Your task to perform on an android device: Go to accessibility settings Image 0: 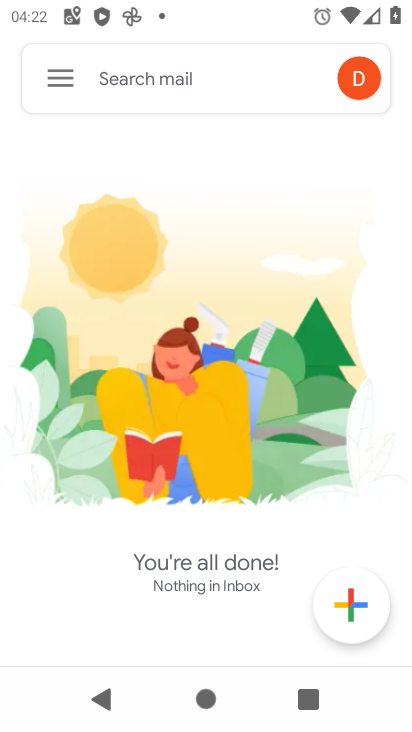
Step 0: press home button
Your task to perform on an android device: Go to accessibility settings Image 1: 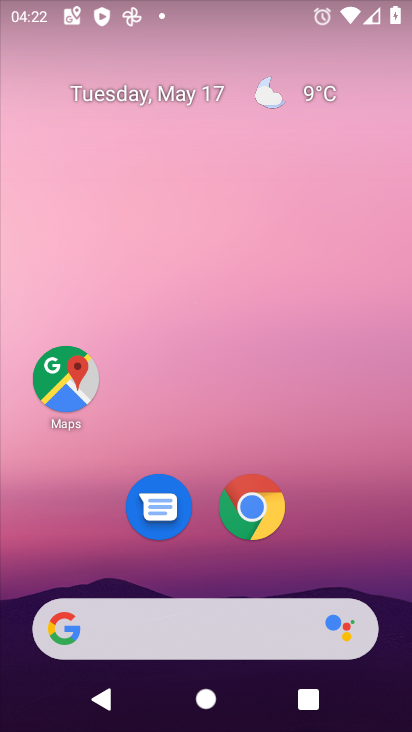
Step 1: drag from (322, 516) to (220, 123)
Your task to perform on an android device: Go to accessibility settings Image 2: 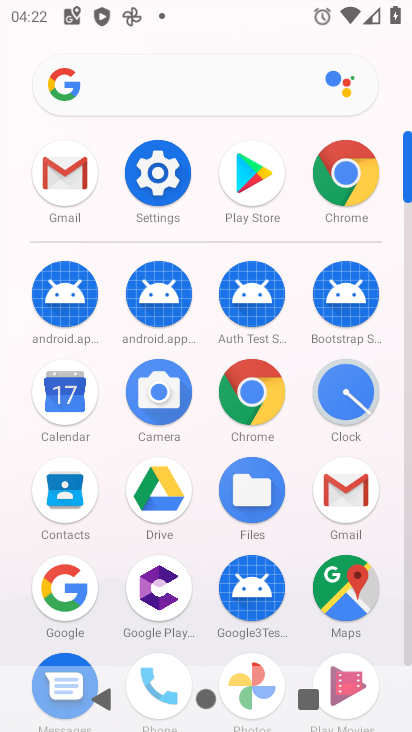
Step 2: click (161, 181)
Your task to perform on an android device: Go to accessibility settings Image 3: 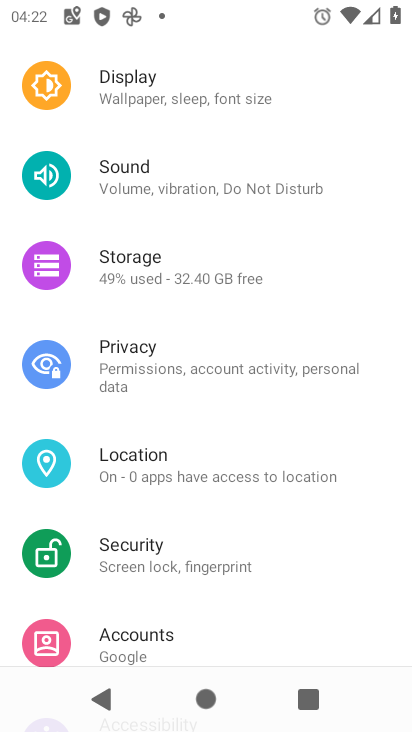
Step 3: drag from (270, 588) to (228, 143)
Your task to perform on an android device: Go to accessibility settings Image 4: 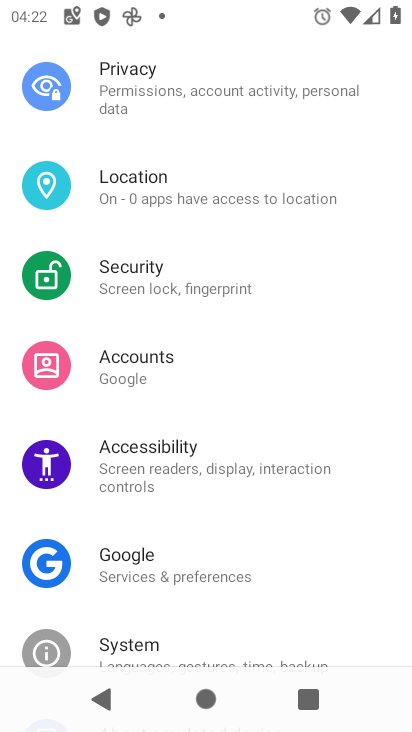
Step 4: click (186, 475)
Your task to perform on an android device: Go to accessibility settings Image 5: 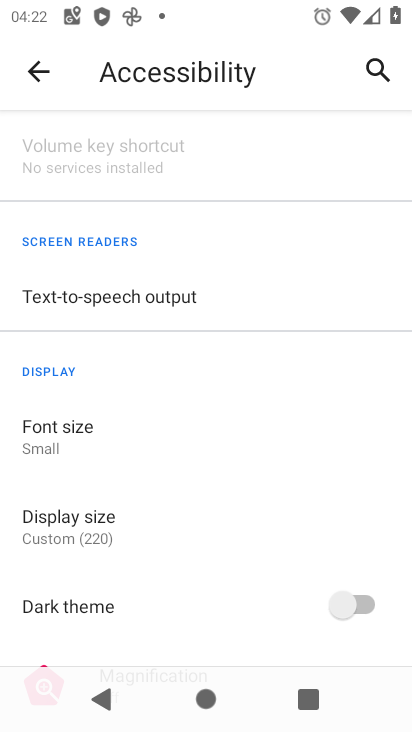
Step 5: task complete